Your task to perform on an android device: Open calendar and show me the first week of next month Image 0: 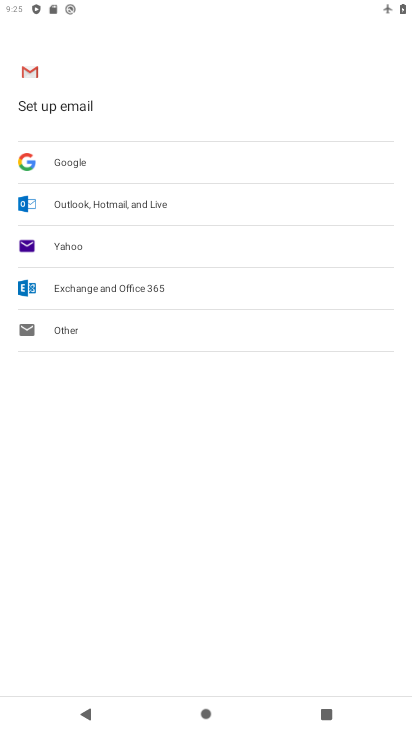
Step 0: press home button
Your task to perform on an android device: Open calendar and show me the first week of next month Image 1: 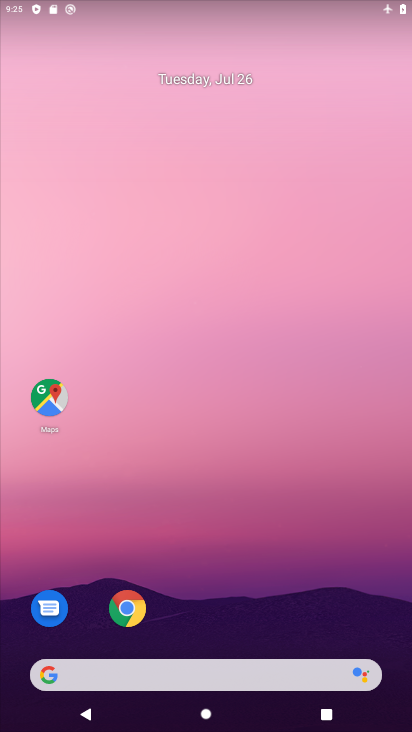
Step 1: drag from (245, 596) to (234, 202)
Your task to perform on an android device: Open calendar and show me the first week of next month Image 2: 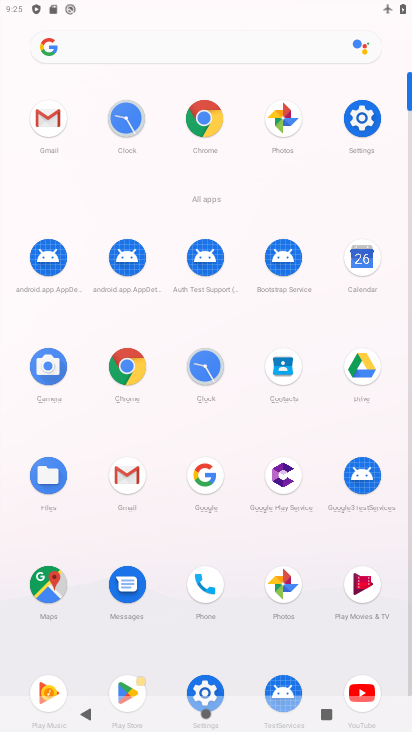
Step 2: click (376, 260)
Your task to perform on an android device: Open calendar and show me the first week of next month Image 3: 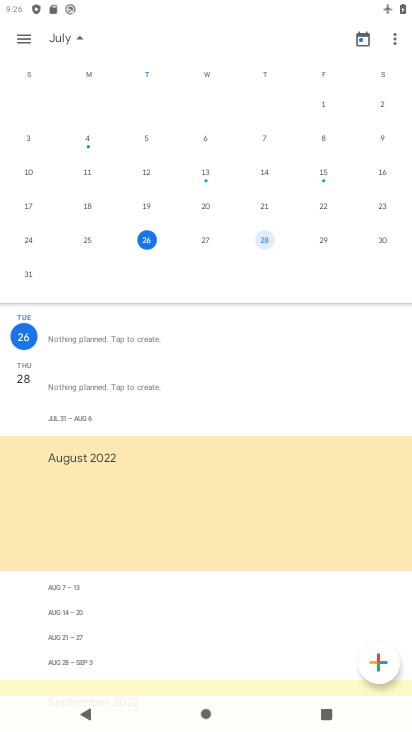
Step 3: drag from (307, 181) to (66, 185)
Your task to perform on an android device: Open calendar and show me the first week of next month Image 4: 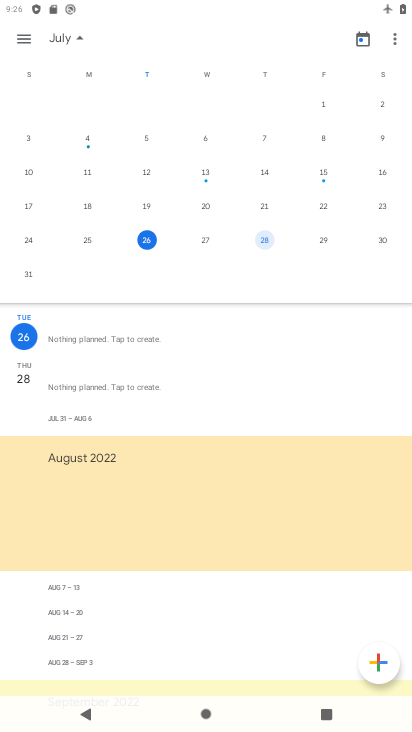
Step 4: drag from (349, 202) to (0, 191)
Your task to perform on an android device: Open calendar and show me the first week of next month Image 5: 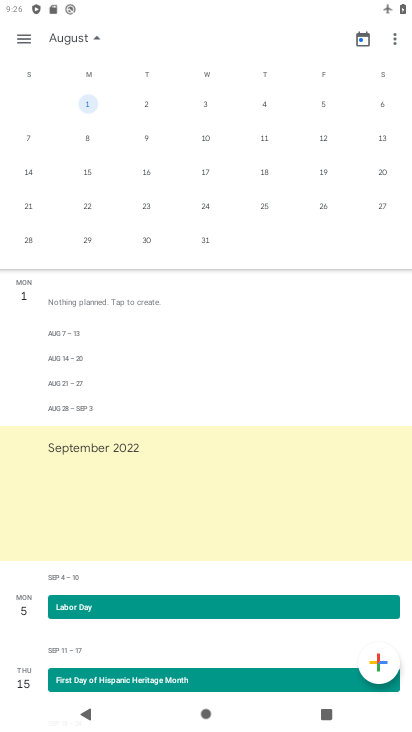
Step 5: click (135, 114)
Your task to perform on an android device: Open calendar and show me the first week of next month Image 6: 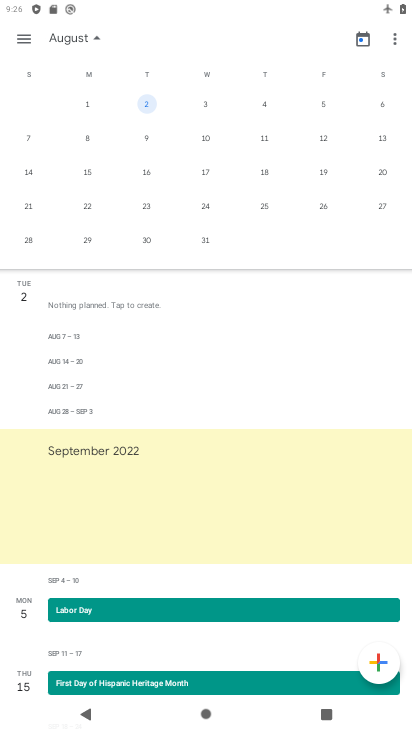
Step 6: task complete